Your task to perform on an android device: Open Youtube and go to the subscriptions tab Image 0: 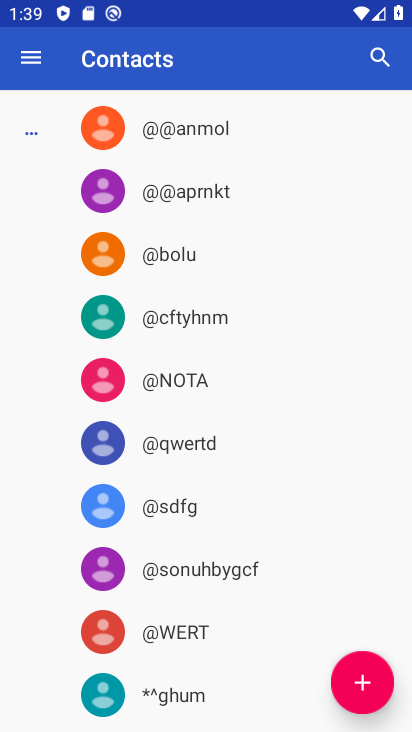
Step 0: press home button
Your task to perform on an android device: Open Youtube and go to the subscriptions tab Image 1: 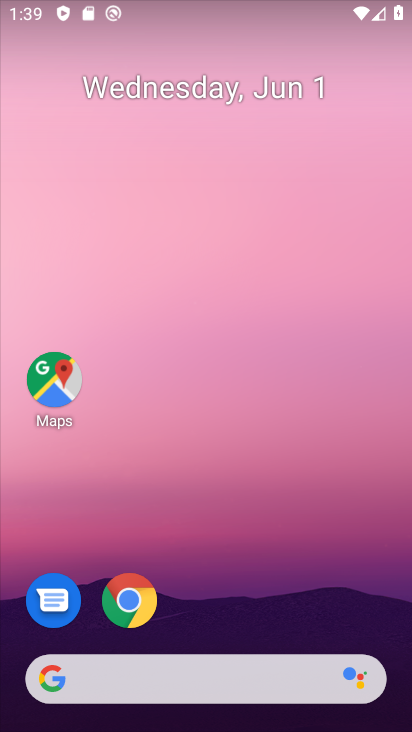
Step 1: drag from (280, 644) to (396, 132)
Your task to perform on an android device: Open Youtube and go to the subscriptions tab Image 2: 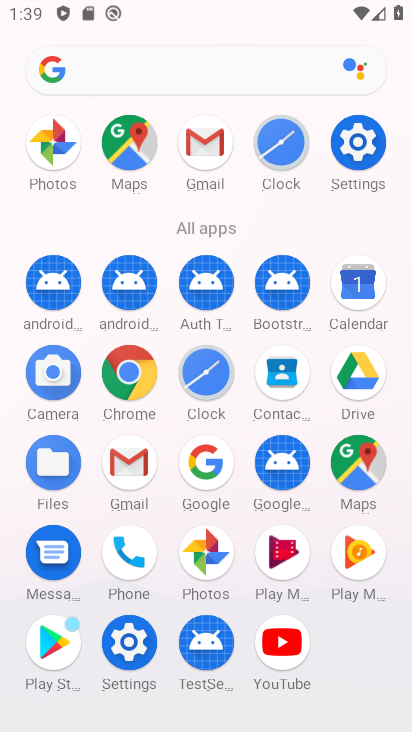
Step 2: click (277, 671)
Your task to perform on an android device: Open Youtube and go to the subscriptions tab Image 3: 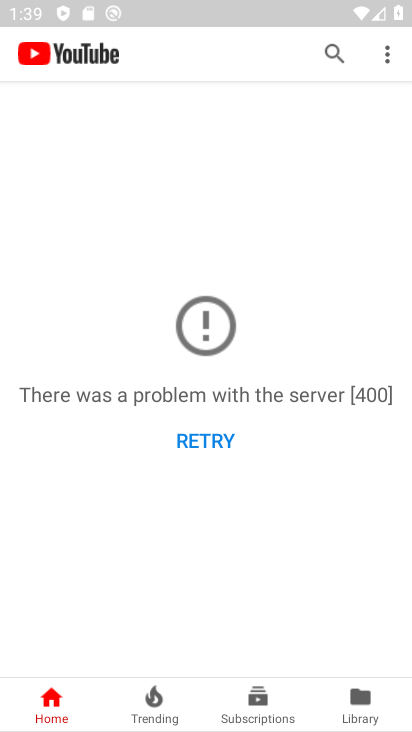
Step 3: click (258, 694)
Your task to perform on an android device: Open Youtube and go to the subscriptions tab Image 4: 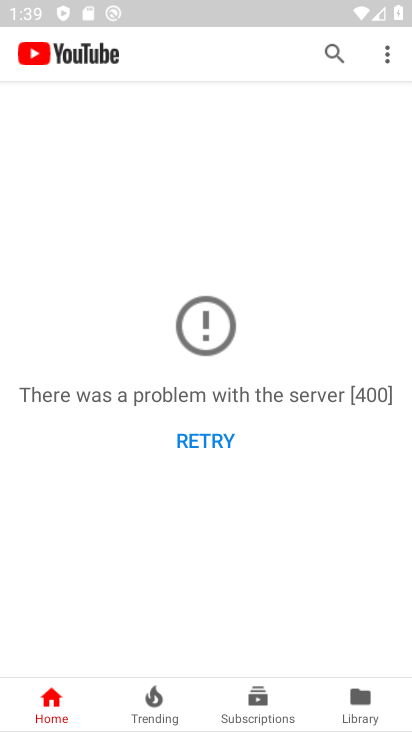
Step 4: click (258, 695)
Your task to perform on an android device: Open Youtube and go to the subscriptions tab Image 5: 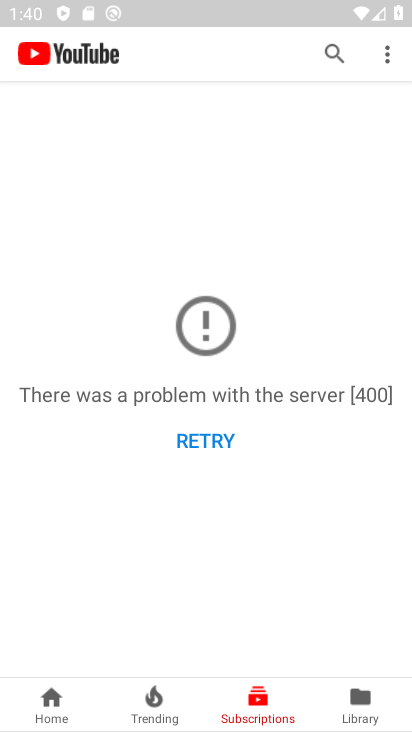
Step 5: task complete